Your task to perform on an android device: turn off airplane mode Image 0: 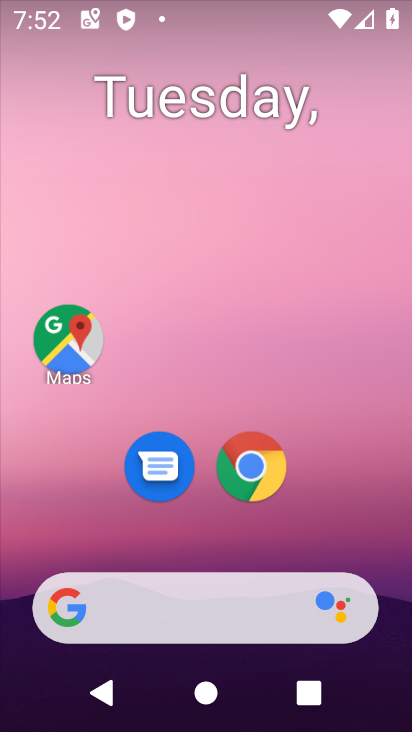
Step 0: press home button
Your task to perform on an android device: turn off airplane mode Image 1: 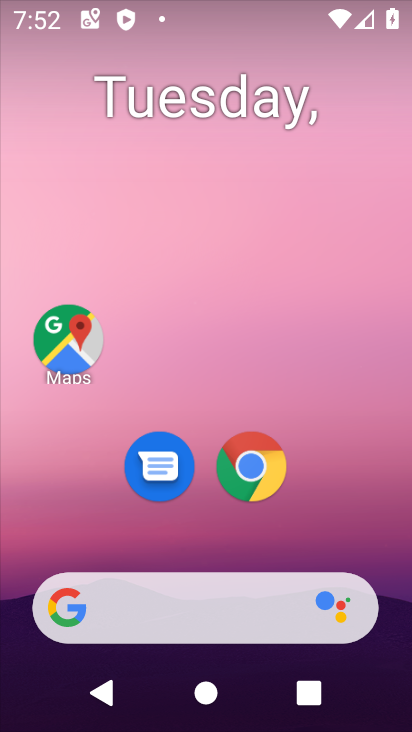
Step 1: task complete